Your task to perform on an android device: allow cookies in the chrome app Image 0: 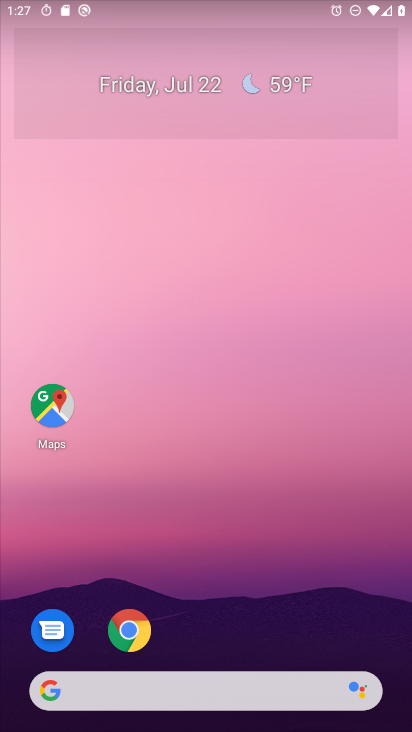
Step 0: press home button
Your task to perform on an android device: allow cookies in the chrome app Image 1: 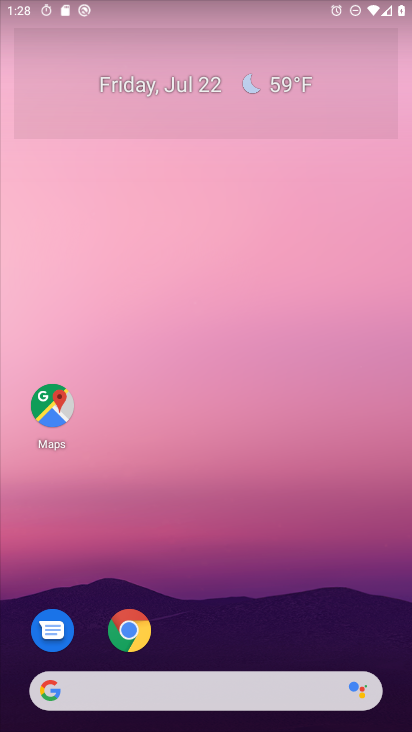
Step 1: drag from (250, 580) to (294, 8)
Your task to perform on an android device: allow cookies in the chrome app Image 2: 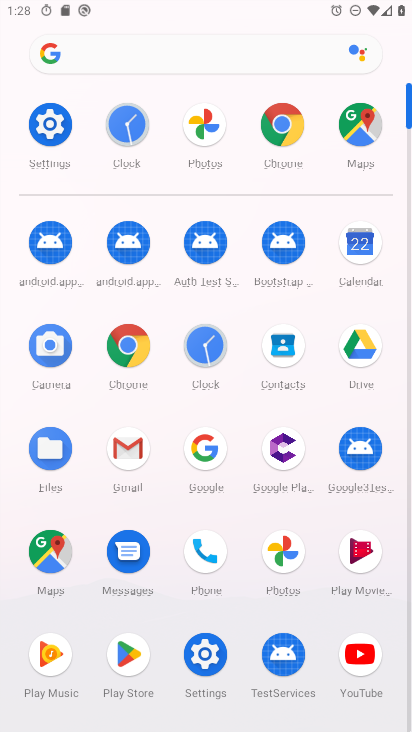
Step 2: click (280, 121)
Your task to perform on an android device: allow cookies in the chrome app Image 3: 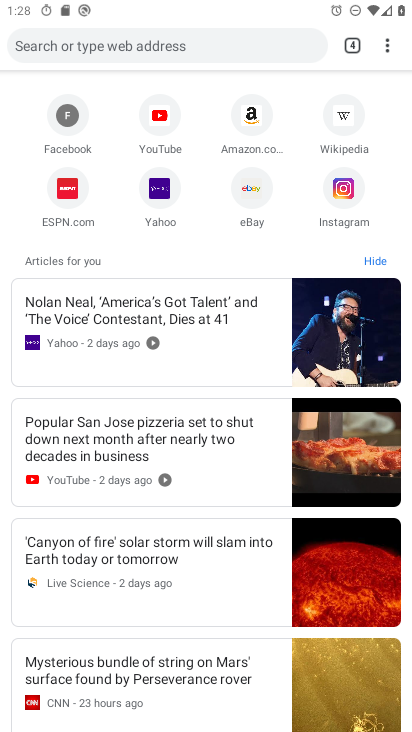
Step 3: drag from (383, 54) to (228, 435)
Your task to perform on an android device: allow cookies in the chrome app Image 4: 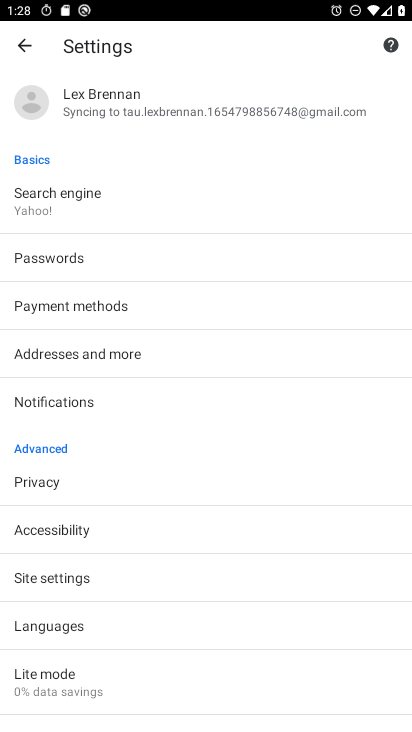
Step 4: click (55, 580)
Your task to perform on an android device: allow cookies in the chrome app Image 5: 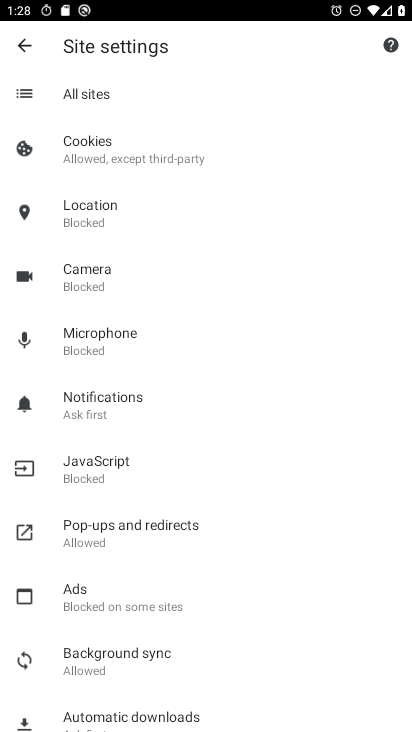
Step 5: click (89, 155)
Your task to perform on an android device: allow cookies in the chrome app Image 6: 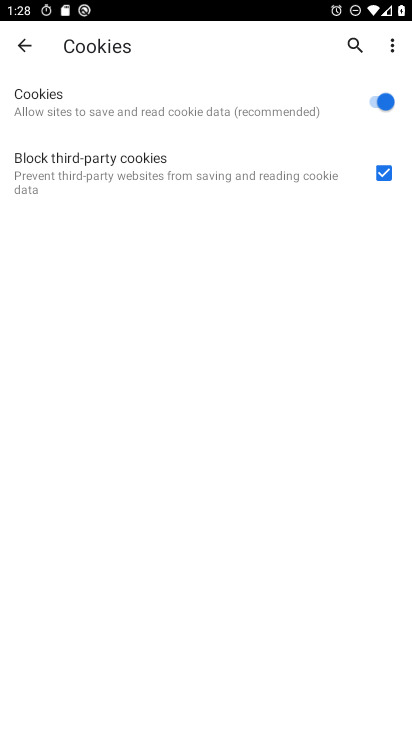
Step 6: task complete